Your task to perform on an android device: Clear the shopping cart on bestbuy.com. Search for jbl flip 4 on bestbuy.com, select the first entry, and add it to the cart. Image 0: 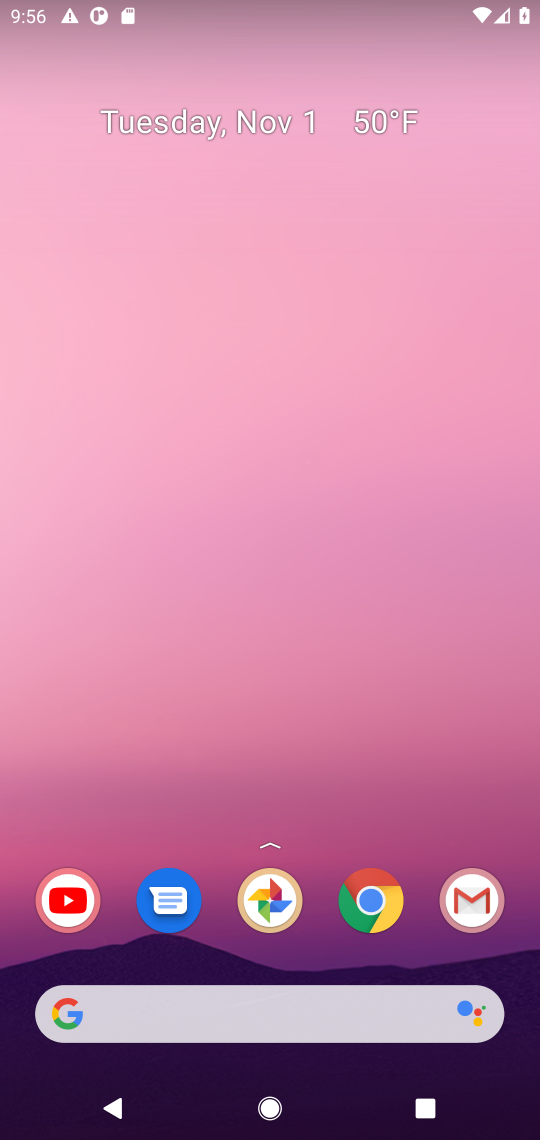
Step 0: click (381, 906)
Your task to perform on an android device: Clear the shopping cart on bestbuy.com. Search for jbl flip 4 on bestbuy.com, select the first entry, and add it to the cart. Image 1: 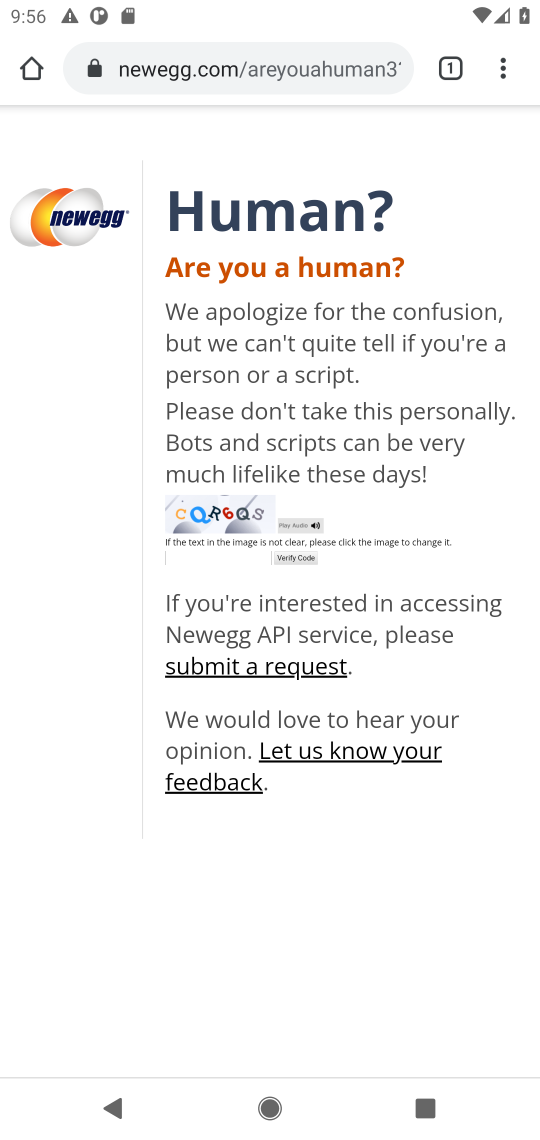
Step 1: click (301, 62)
Your task to perform on an android device: Clear the shopping cart on bestbuy.com. Search for jbl flip 4 on bestbuy.com, select the first entry, and add it to the cart. Image 2: 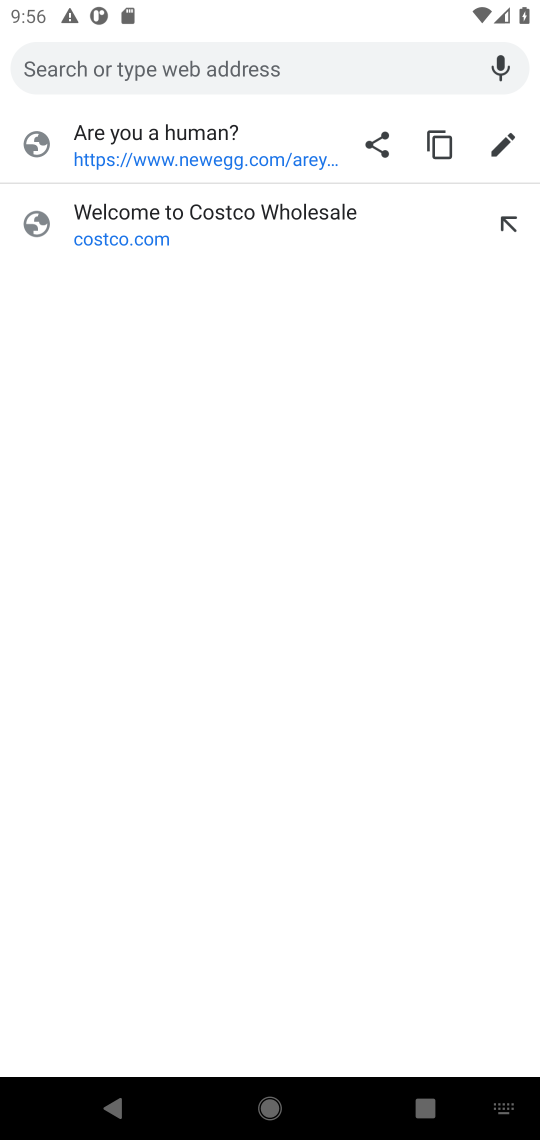
Step 2: type "bestbuy"
Your task to perform on an android device: Clear the shopping cart on bestbuy.com. Search for jbl flip 4 on bestbuy.com, select the first entry, and add it to the cart. Image 3: 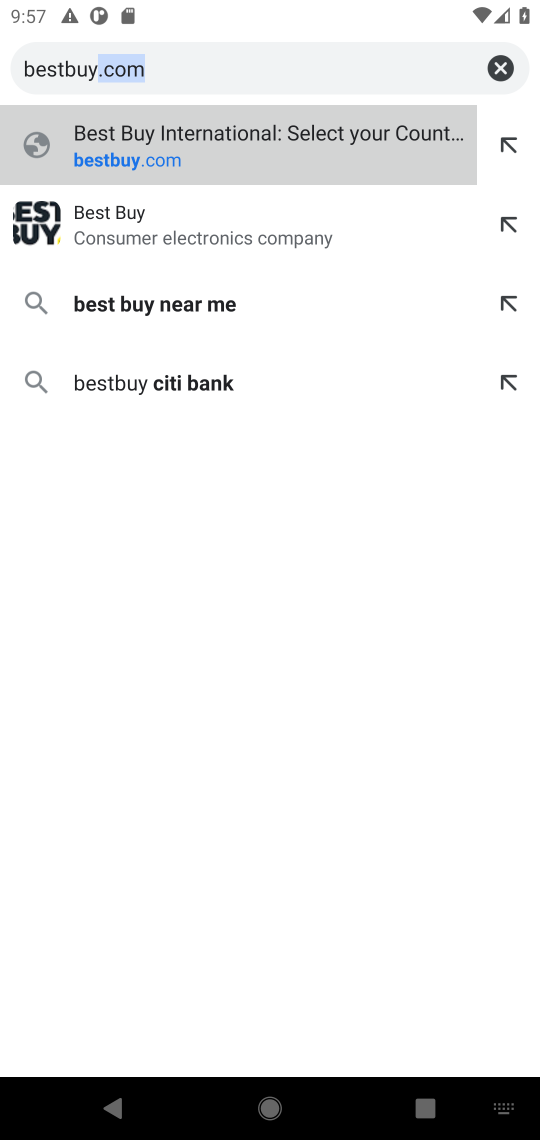
Step 3: click (176, 225)
Your task to perform on an android device: Clear the shopping cart on bestbuy.com. Search for jbl flip 4 on bestbuy.com, select the first entry, and add it to the cart. Image 4: 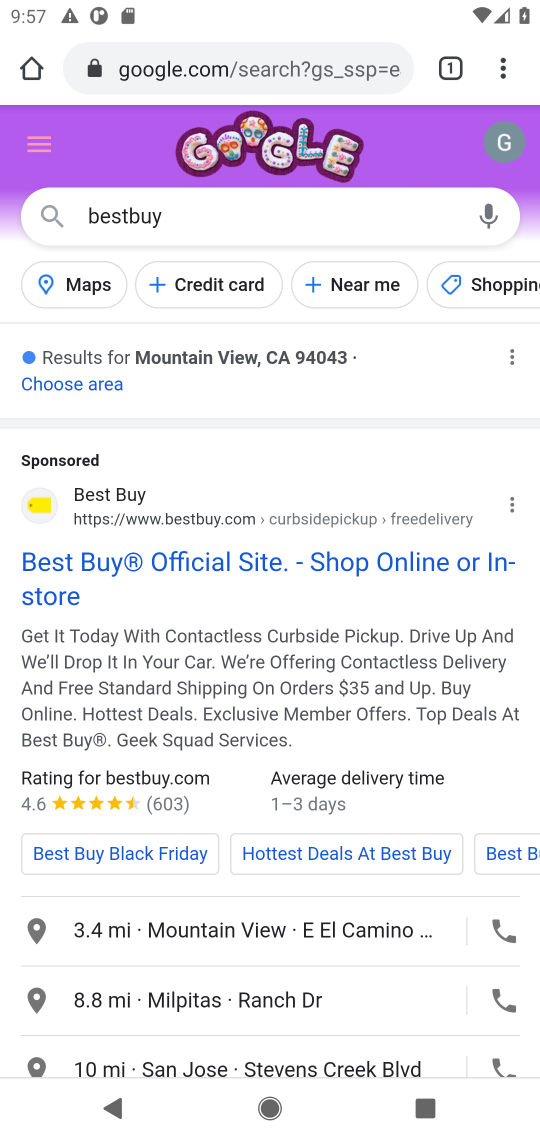
Step 4: click (44, 579)
Your task to perform on an android device: Clear the shopping cart on bestbuy.com. Search for jbl flip 4 on bestbuy.com, select the first entry, and add it to the cart. Image 5: 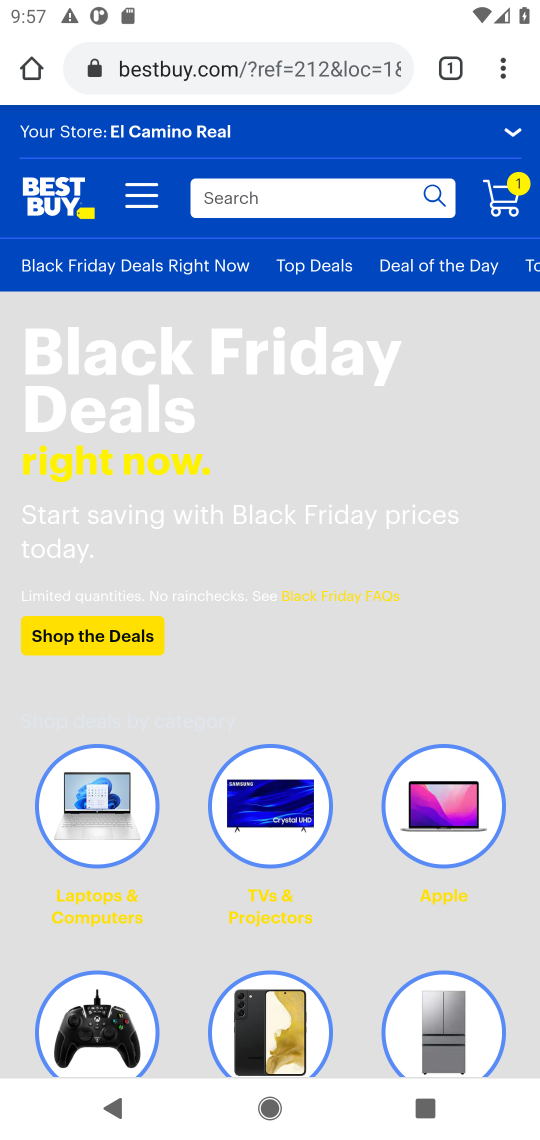
Step 5: click (490, 209)
Your task to perform on an android device: Clear the shopping cart on bestbuy.com. Search for jbl flip 4 on bestbuy.com, select the first entry, and add it to the cart. Image 6: 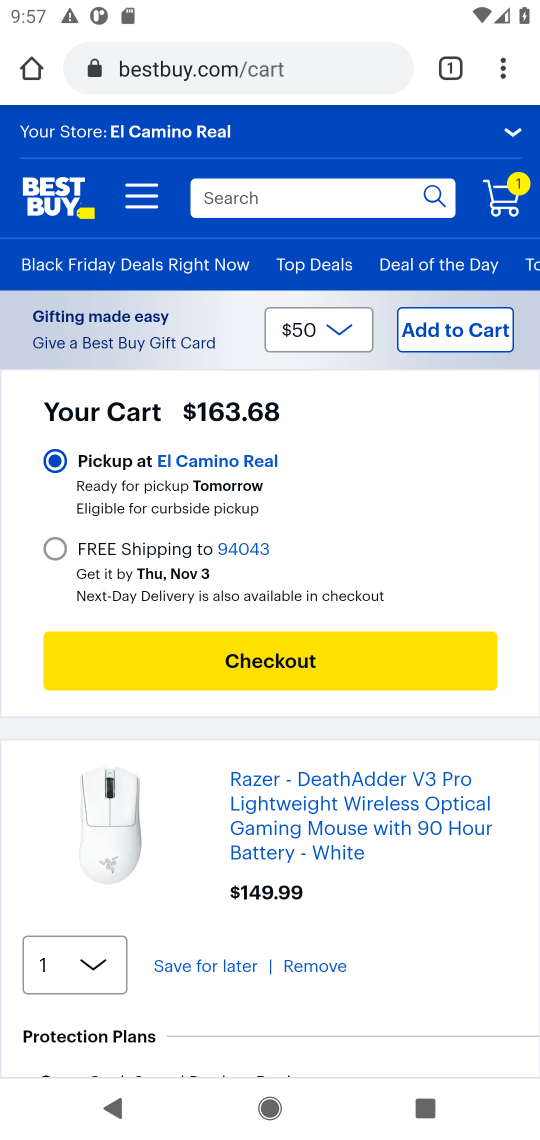
Step 6: click (311, 970)
Your task to perform on an android device: Clear the shopping cart on bestbuy.com. Search for jbl flip 4 on bestbuy.com, select the first entry, and add it to the cart. Image 7: 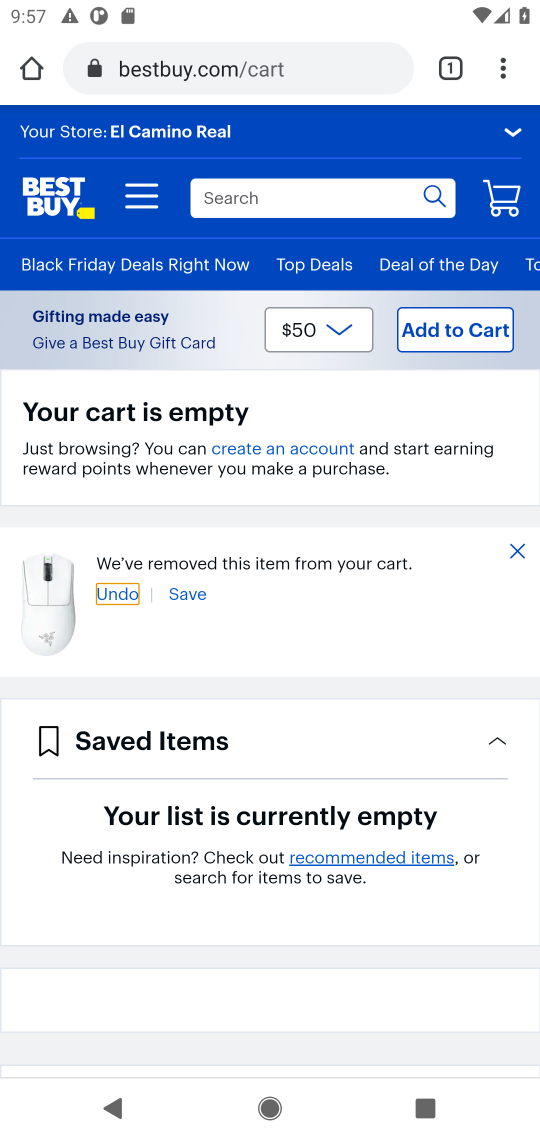
Step 7: click (368, 185)
Your task to perform on an android device: Clear the shopping cart on bestbuy.com. Search for jbl flip 4 on bestbuy.com, select the first entry, and add it to the cart. Image 8: 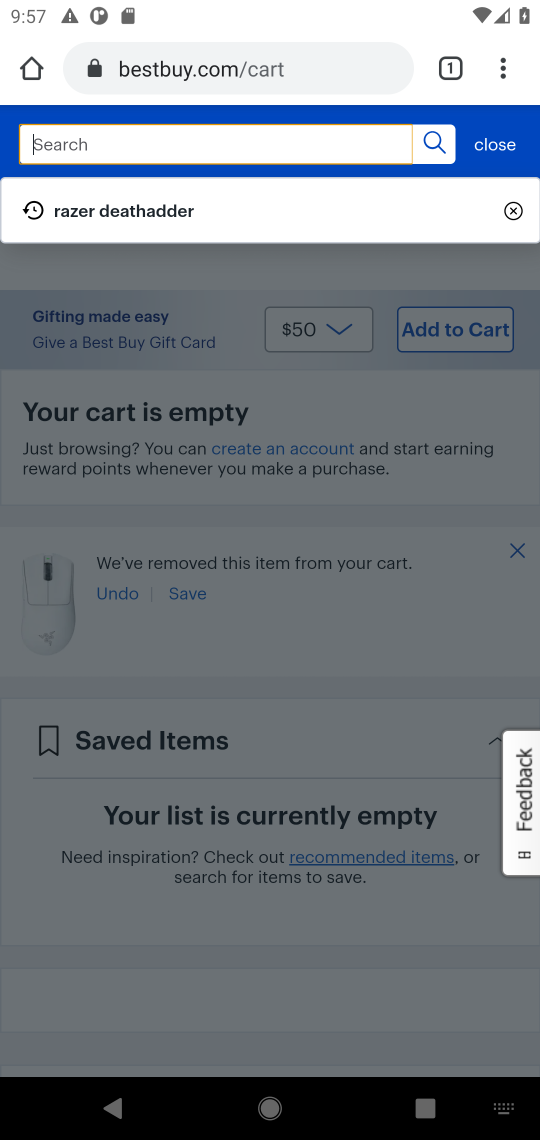
Step 8: type "jbl flip 4"
Your task to perform on an android device: Clear the shopping cart on bestbuy.com. Search for jbl flip 4 on bestbuy.com, select the first entry, and add it to the cart. Image 9: 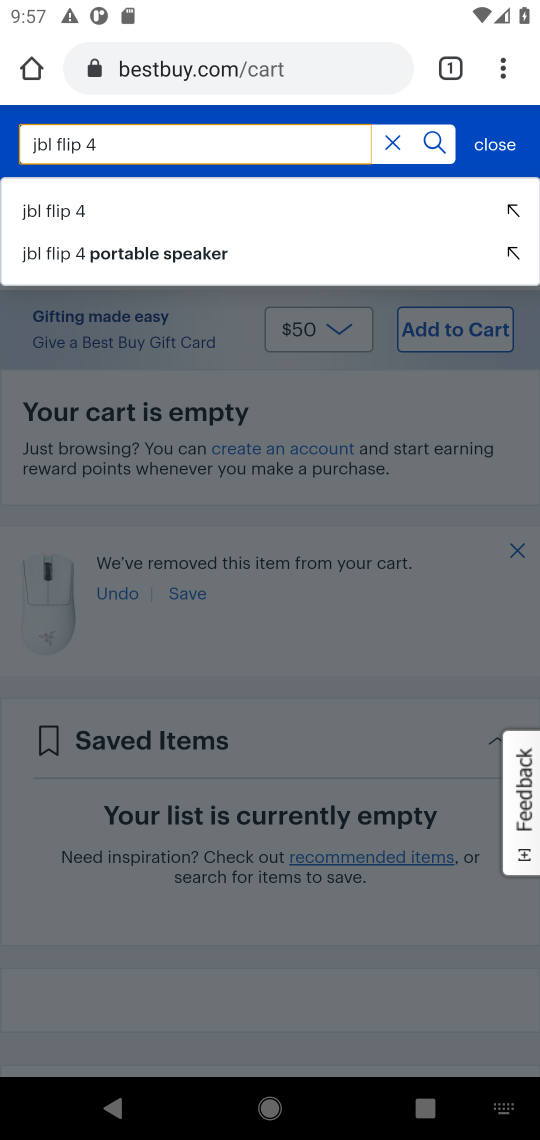
Step 9: click (330, 211)
Your task to perform on an android device: Clear the shopping cart on bestbuy.com. Search for jbl flip 4 on bestbuy.com, select the first entry, and add it to the cart. Image 10: 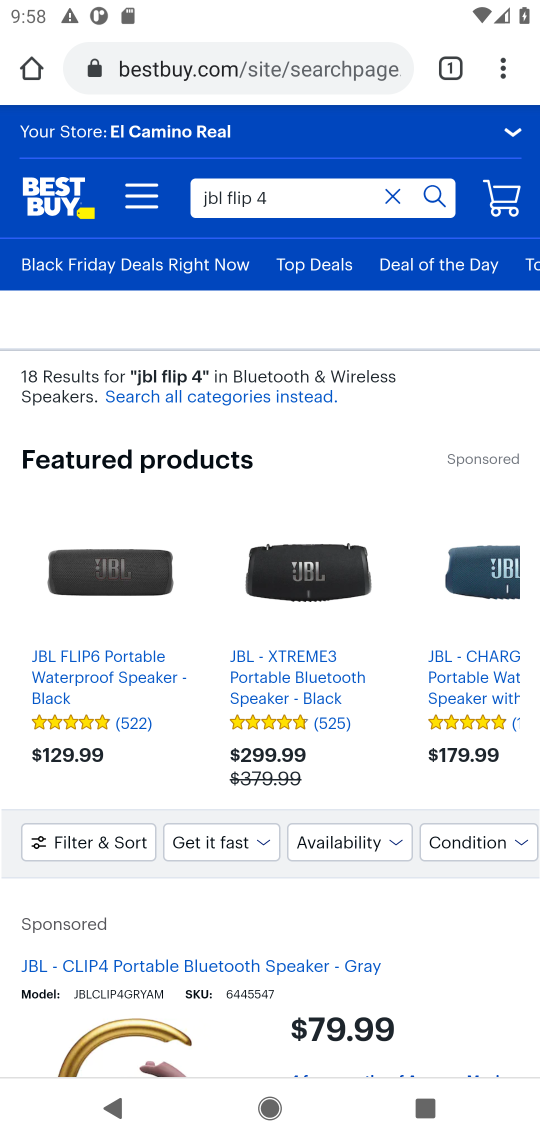
Step 10: task complete